Your task to perform on an android device: delete a single message in the gmail app Image 0: 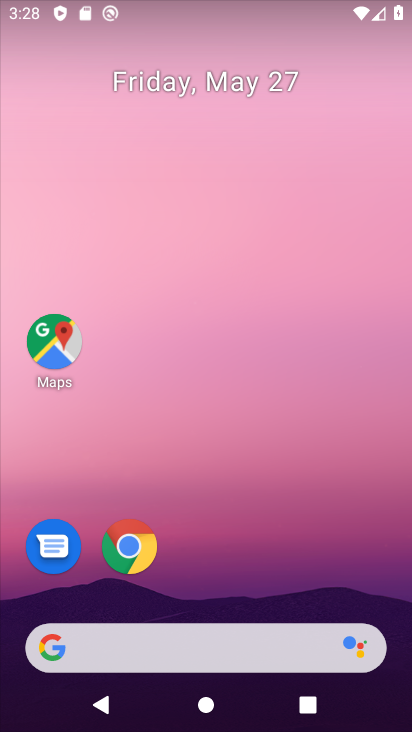
Step 0: drag from (397, 409) to (403, 33)
Your task to perform on an android device: delete a single message in the gmail app Image 1: 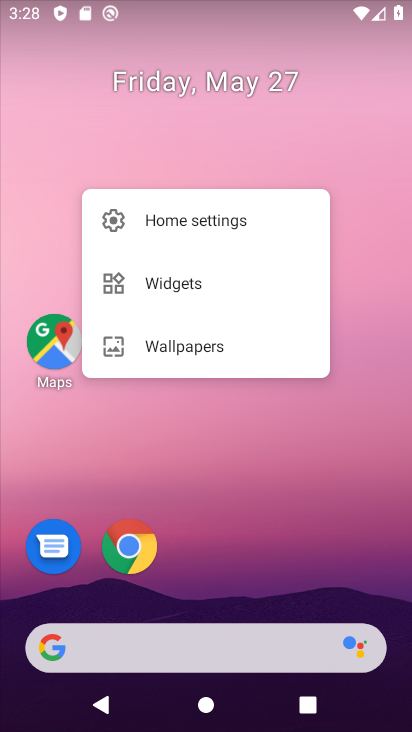
Step 1: click (385, 570)
Your task to perform on an android device: delete a single message in the gmail app Image 2: 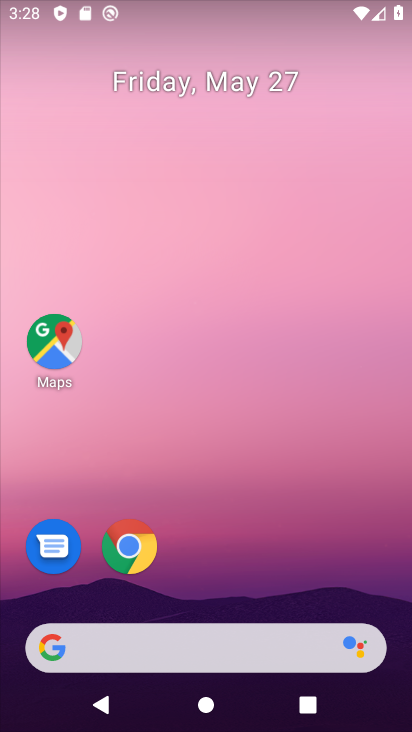
Step 2: drag from (392, 709) to (335, 162)
Your task to perform on an android device: delete a single message in the gmail app Image 3: 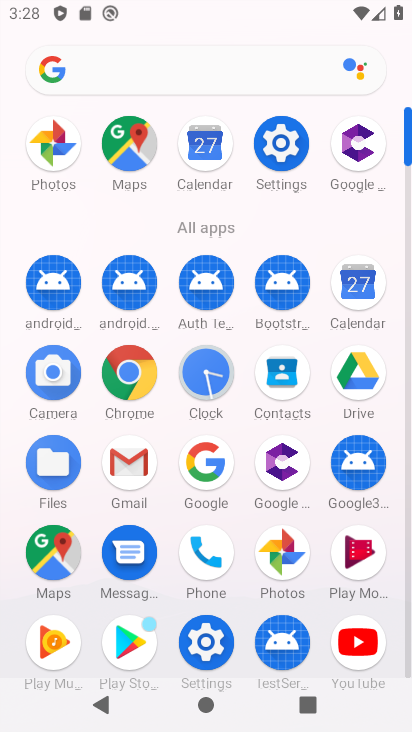
Step 3: click (128, 458)
Your task to perform on an android device: delete a single message in the gmail app Image 4: 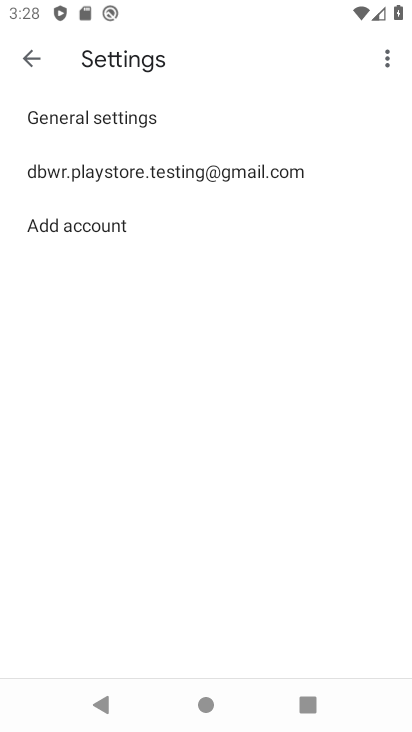
Step 4: click (31, 58)
Your task to perform on an android device: delete a single message in the gmail app Image 5: 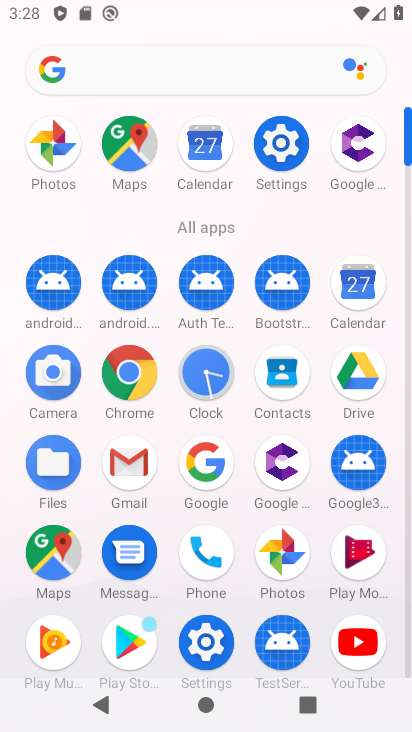
Step 5: click (142, 470)
Your task to perform on an android device: delete a single message in the gmail app Image 6: 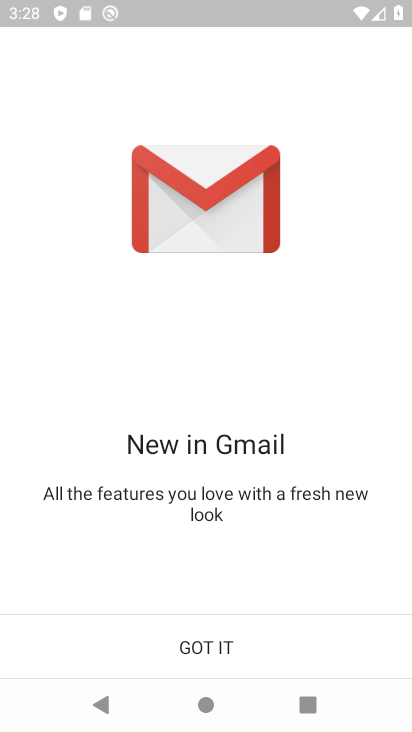
Step 6: click (197, 650)
Your task to perform on an android device: delete a single message in the gmail app Image 7: 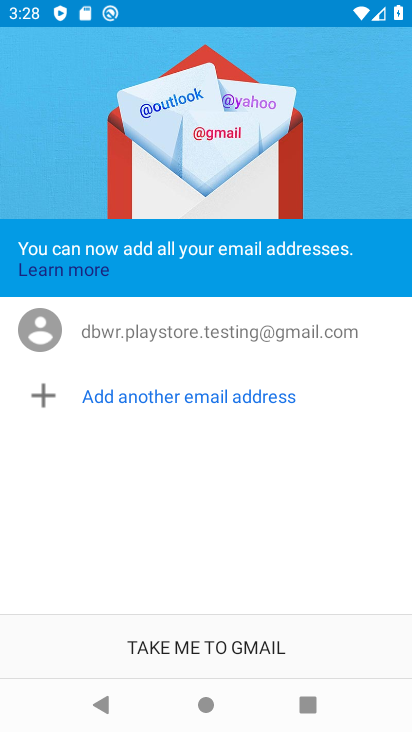
Step 7: click (204, 640)
Your task to perform on an android device: delete a single message in the gmail app Image 8: 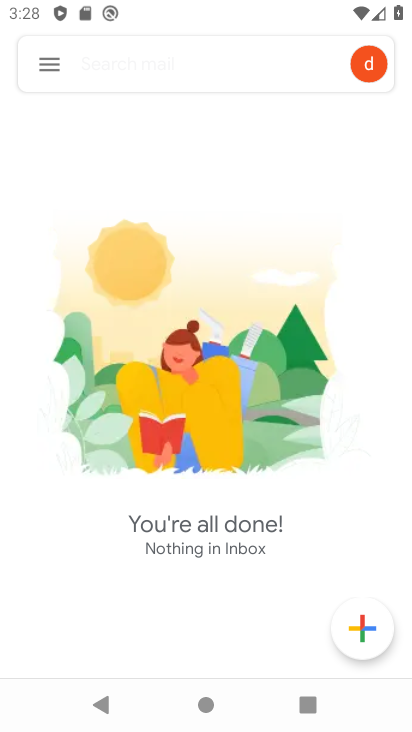
Step 8: click (53, 61)
Your task to perform on an android device: delete a single message in the gmail app Image 9: 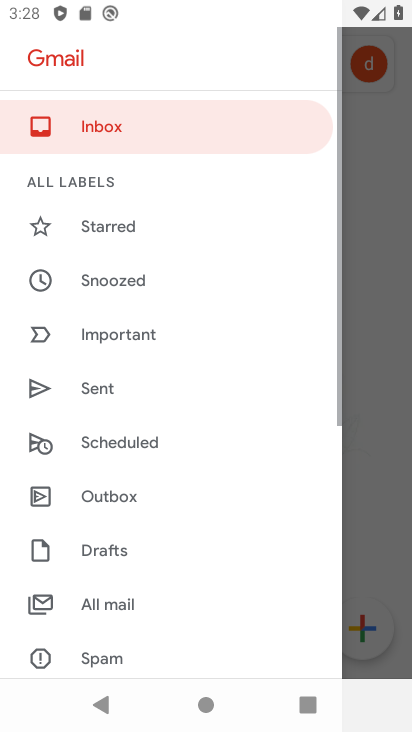
Step 9: click (107, 126)
Your task to perform on an android device: delete a single message in the gmail app Image 10: 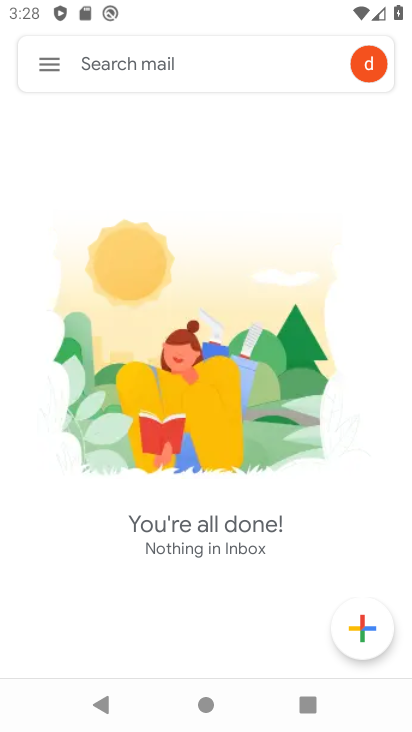
Step 10: task complete